Your task to perform on an android device: toggle priority inbox in the gmail app Image 0: 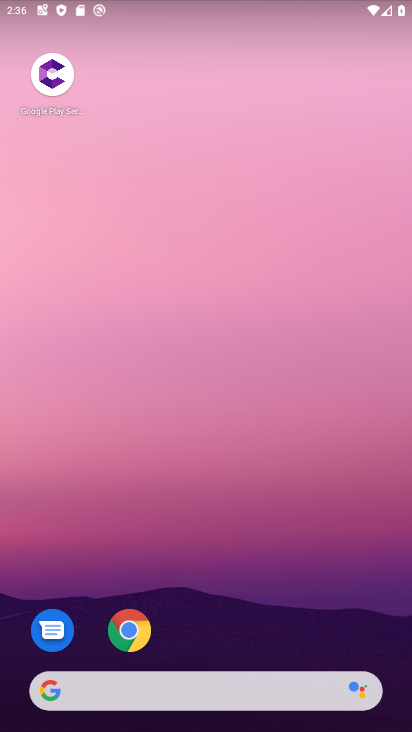
Step 0: drag from (317, 640) to (344, 231)
Your task to perform on an android device: toggle priority inbox in the gmail app Image 1: 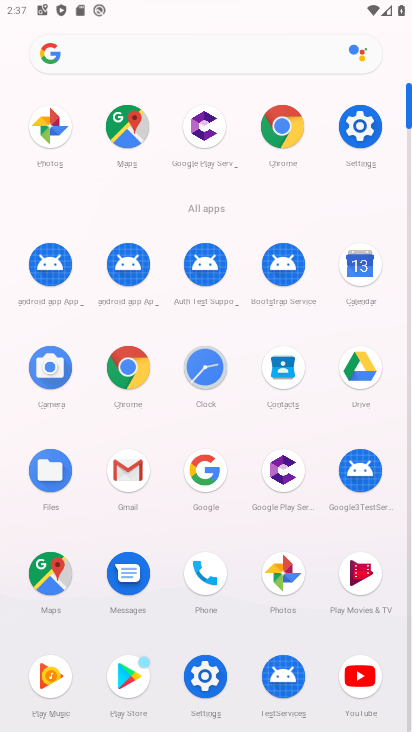
Step 1: click (133, 465)
Your task to perform on an android device: toggle priority inbox in the gmail app Image 2: 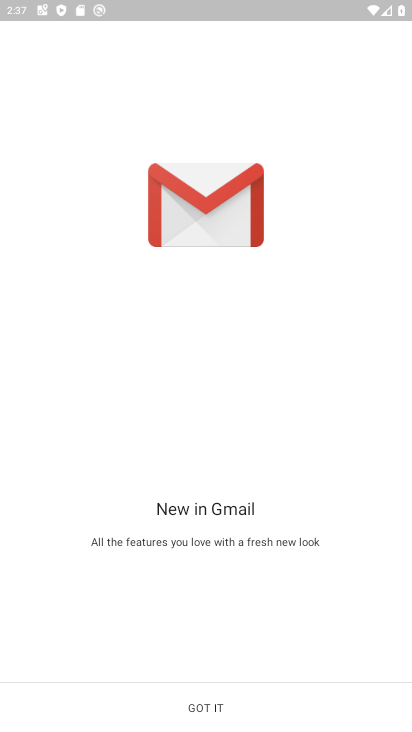
Step 2: click (209, 707)
Your task to perform on an android device: toggle priority inbox in the gmail app Image 3: 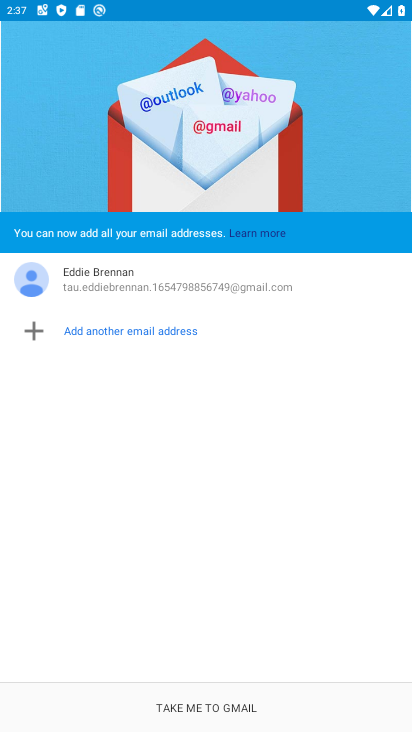
Step 3: click (209, 707)
Your task to perform on an android device: toggle priority inbox in the gmail app Image 4: 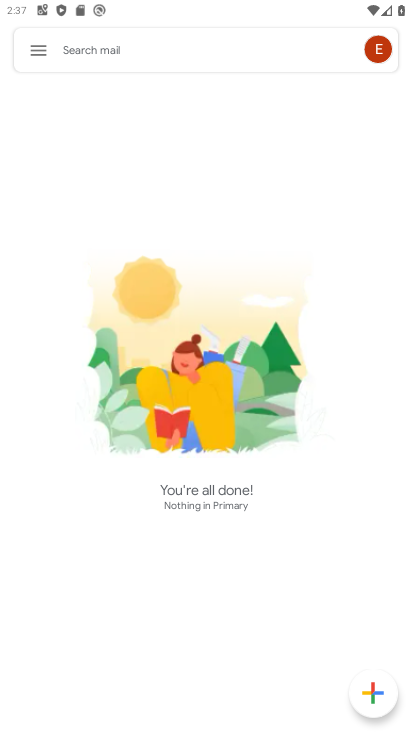
Step 4: click (34, 52)
Your task to perform on an android device: toggle priority inbox in the gmail app Image 5: 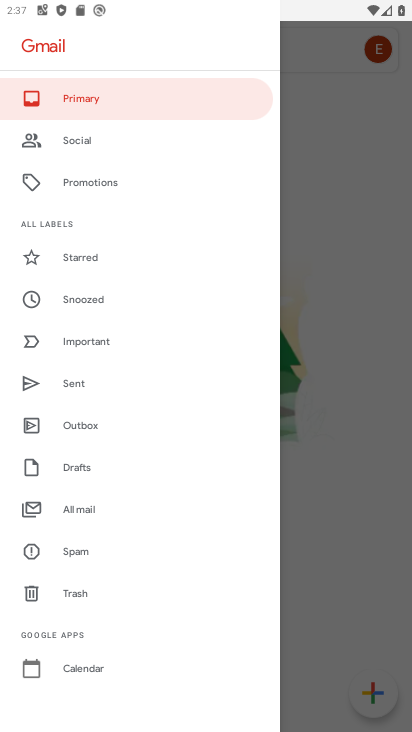
Step 5: drag from (170, 350) to (180, 211)
Your task to perform on an android device: toggle priority inbox in the gmail app Image 6: 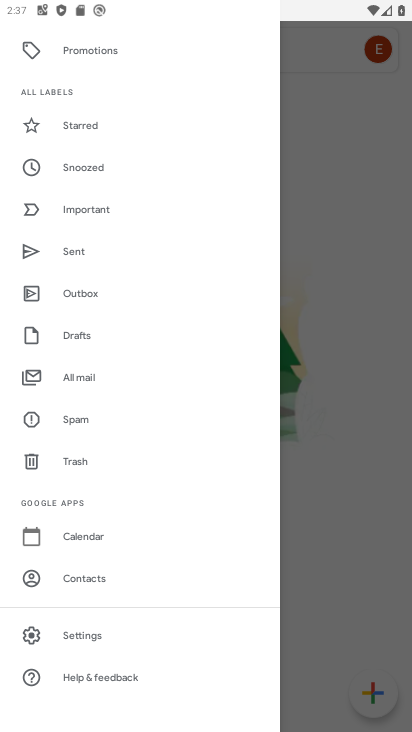
Step 6: drag from (213, 501) to (202, 343)
Your task to perform on an android device: toggle priority inbox in the gmail app Image 7: 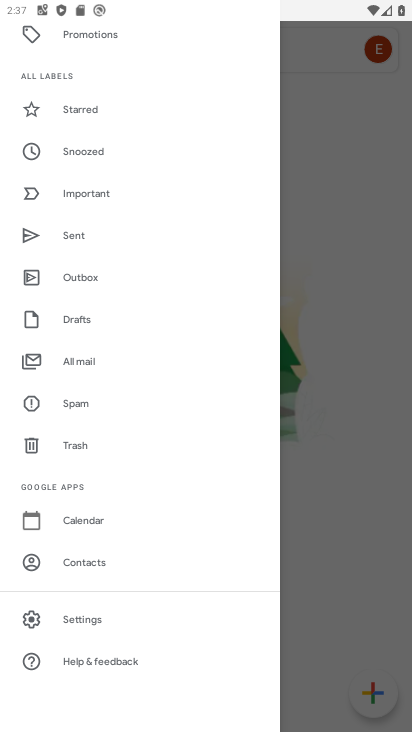
Step 7: drag from (194, 233) to (200, 452)
Your task to perform on an android device: toggle priority inbox in the gmail app Image 8: 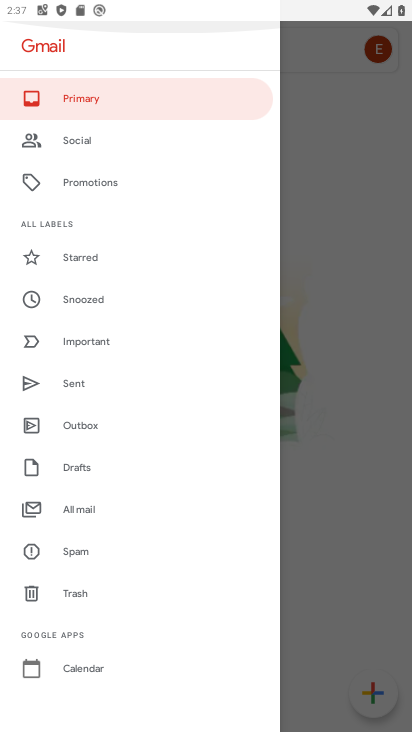
Step 8: drag from (190, 516) to (213, 272)
Your task to perform on an android device: toggle priority inbox in the gmail app Image 9: 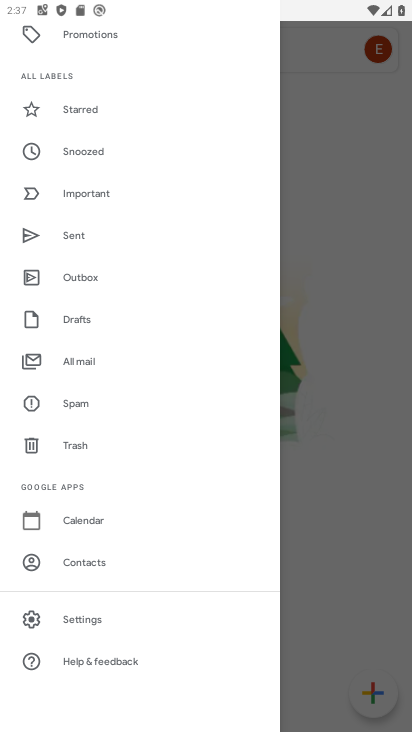
Step 9: drag from (189, 522) to (204, 442)
Your task to perform on an android device: toggle priority inbox in the gmail app Image 10: 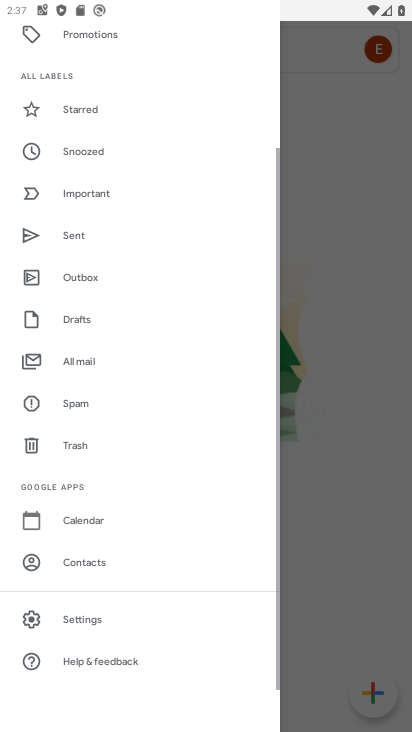
Step 10: click (112, 624)
Your task to perform on an android device: toggle priority inbox in the gmail app Image 11: 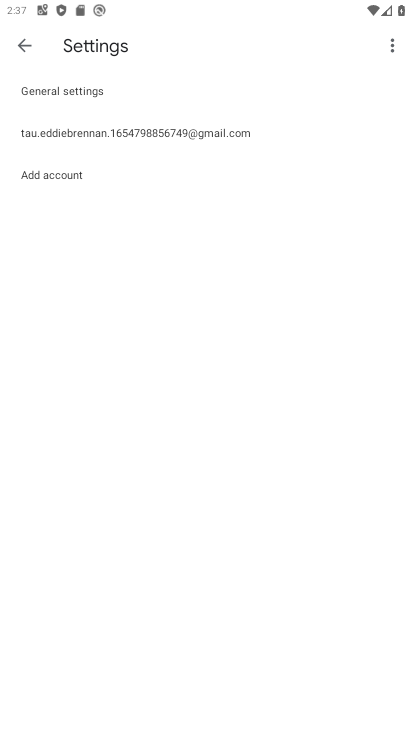
Step 11: click (92, 143)
Your task to perform on an android device: toggle priority inbox in the gmail app Image 12: 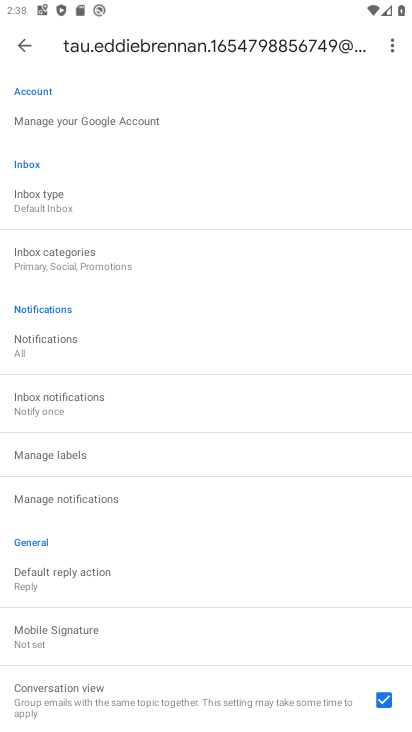
Step 12: drag from (268, 418) to (274, 272)
Your task to perform on an android device: toggle priority inbox in the gmail app Image 13: 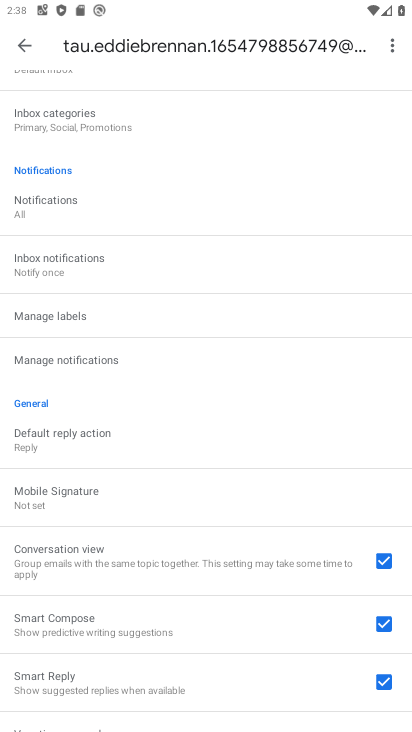
Step 13: drag from (266, 441) to (265, 304)
Your task to perform on an android device: toggle priority inbox in the gmail app Image 14: 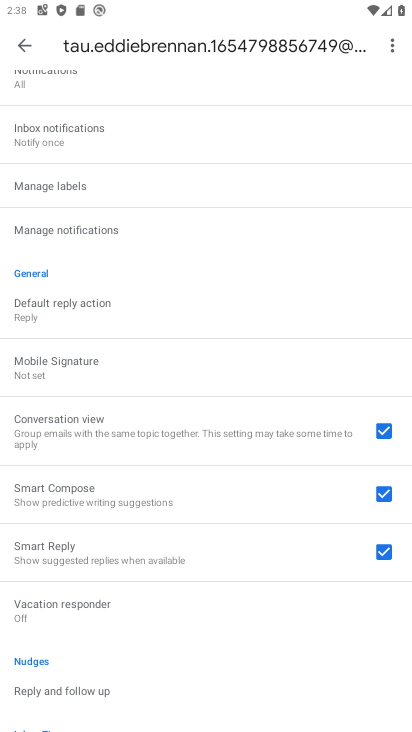
Step 14: drag from (256, 203) to (253, 353)
Your task to perform on an android device: toggle priority inbox in the gmail app Image 15: 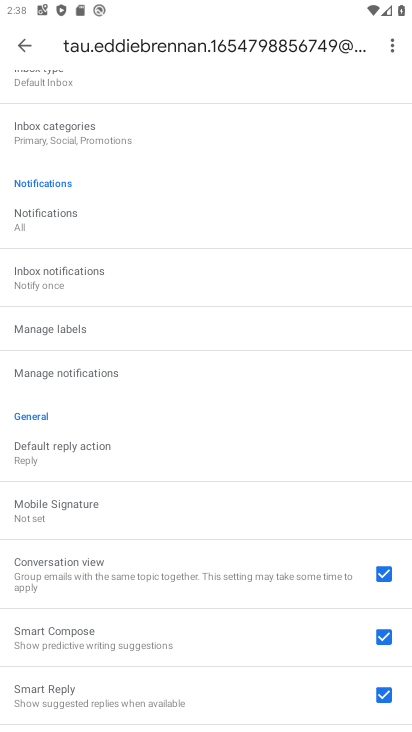
Step 15: drag from (234, 228) to (233, 420)
Your task to perform on an android device: toggle priority inbox in the gmail app Image 16: 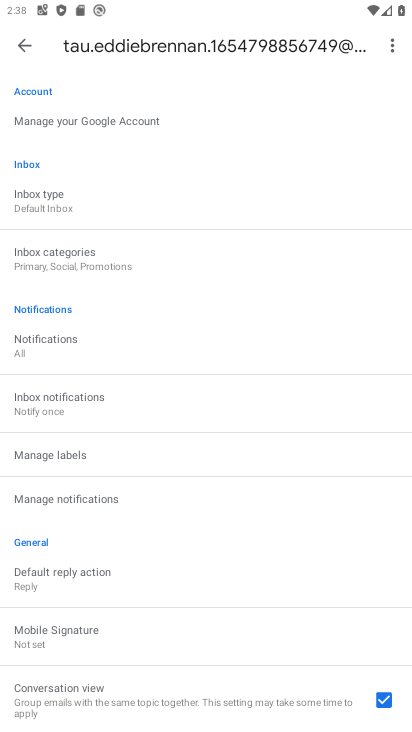
Step 16: drag from (232, 224) to (232, 372)
Your task to perform on an android device: toggle priority inbox in the gmail app Image 17: 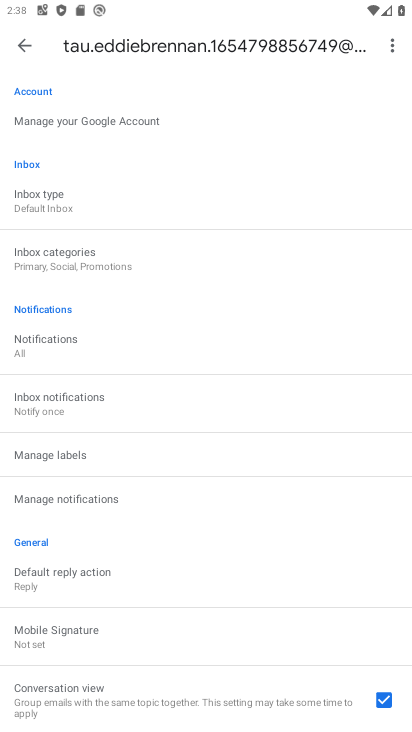
Step 17: click (95, 205)
Your task to perform on an android device: toggle priority inbox in the gmail app Image 18: 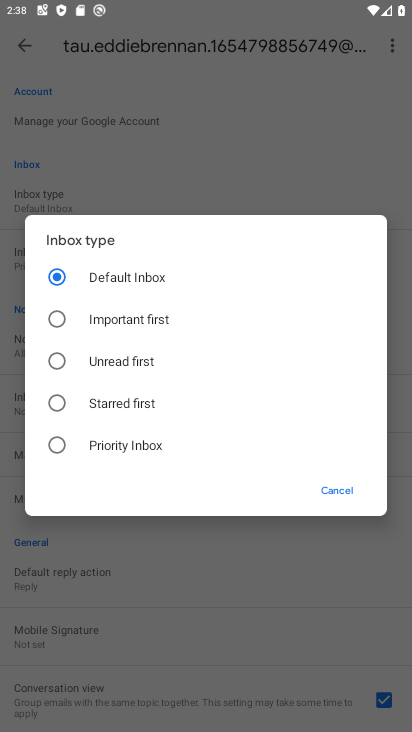
Step 18: click (121, 445)
Your task to perform on an android device: toggle priority inbox in the gmail app Image 19: 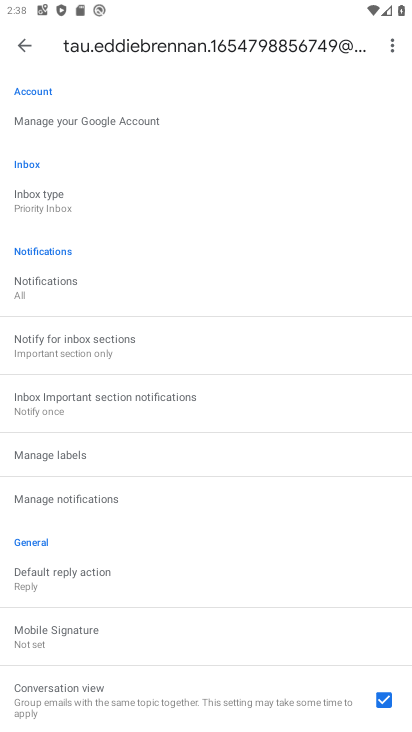
Step 19: task complete